Your task to perform on an android device: Is it going to rain tomorrow? Image 0: 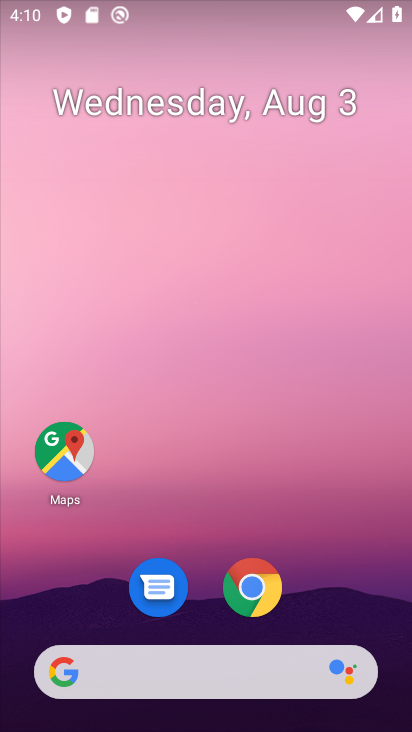
Step 0: click (115, 672)
Your task to perform on an android device: Is it going to rain tomorrow? Image 1: 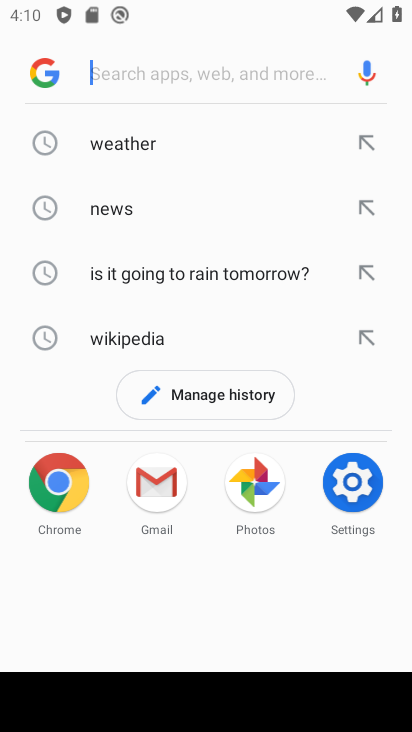
Step 1: click (212, 277)
Your task to perform on an android device: Is it going to rain tomorrow? Image 2: 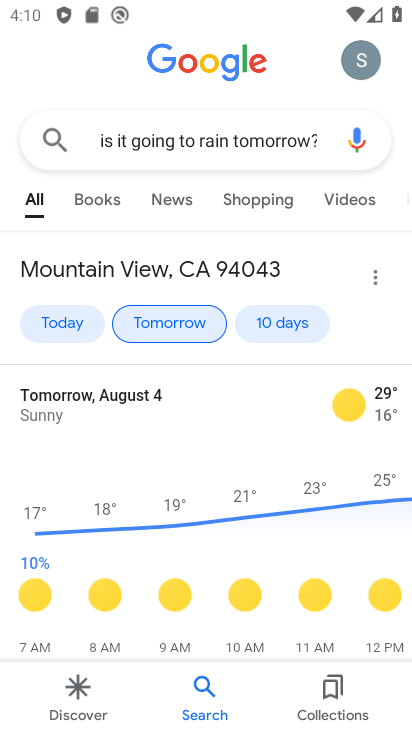
Step 2: task complete